Your task to perform on an android device: What's the weather? Image 0: 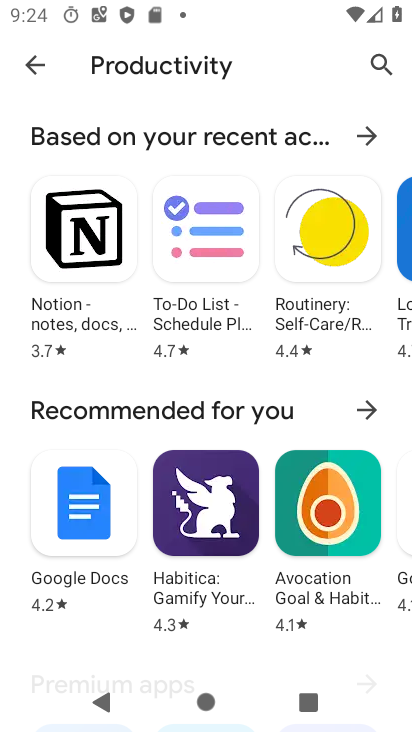
Step 0: press home button
Your task to perform on an android device: What's the weather? Image 1: 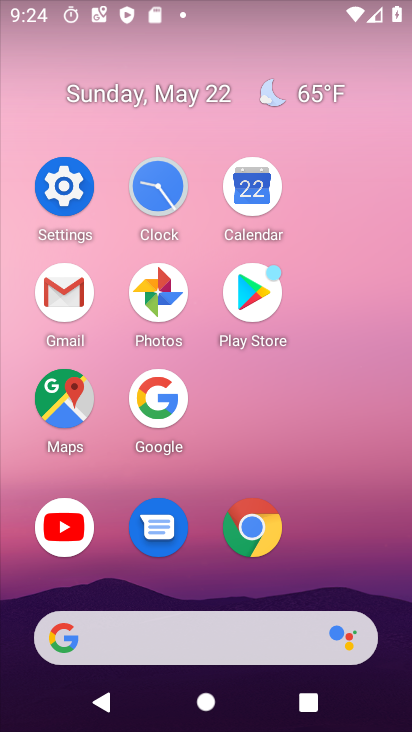
Step 1: click (170, 404)
Your task to perform on an android device: What's the weather? Image 2: 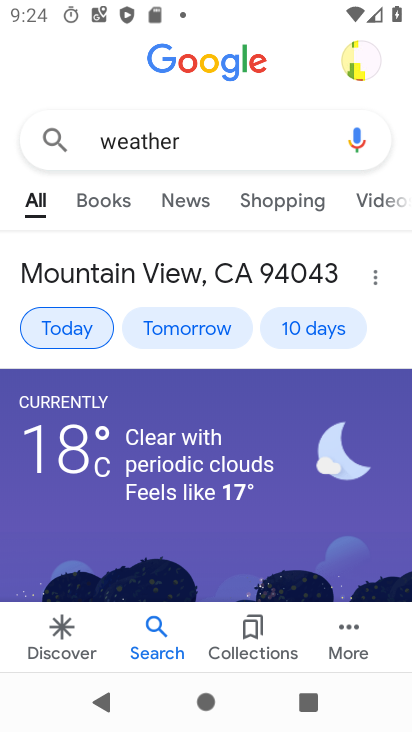
Step 2: task complete